Your task to perform on an android device: Open the Play Movies app and select the watchlist tab. Image 0: 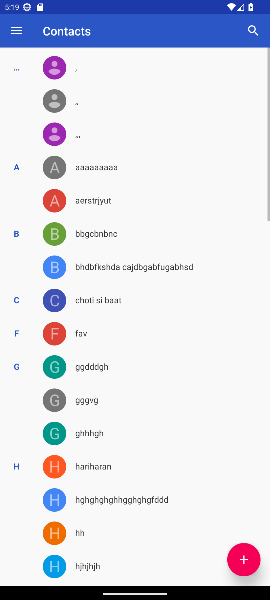
Step 0: press home button
Your task to perform on an android device: Open the Play Movies app and select the watchlist tab. Image 1: 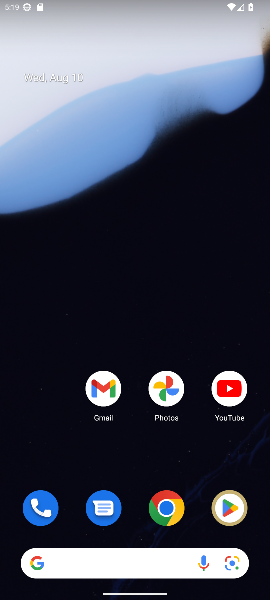
Step 1: task complete